Your task to perform on an android device: turn on location history Image 0: 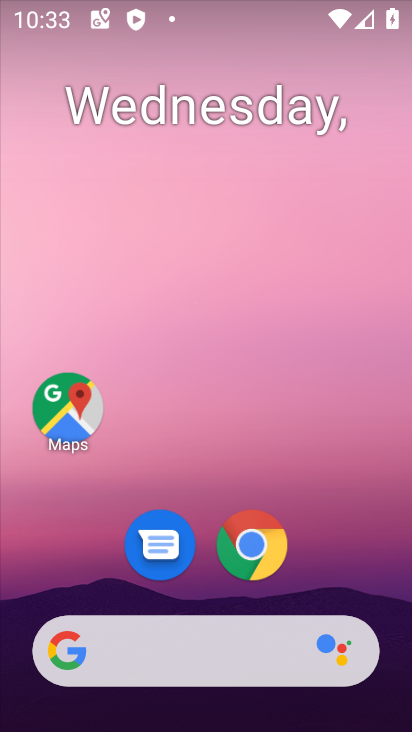
Step 0: drag from (198, 586) to (192, 247)
Your task to perform on an android device: turn on location history Image 1: 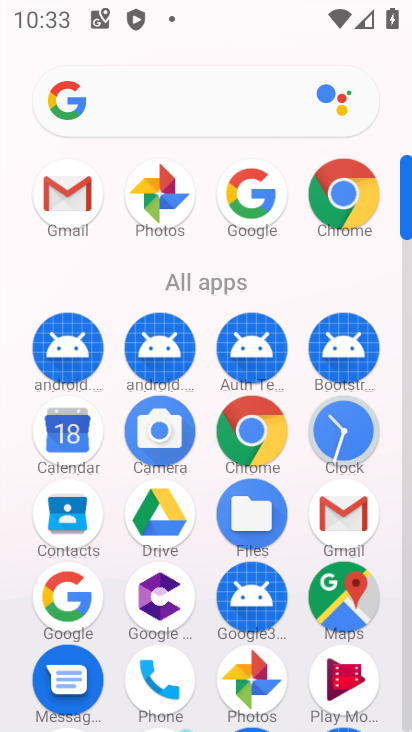
Step 1: drag from (204, 581) to (198, 245)
Your task to perform on an android device: turn on location history Image 2: 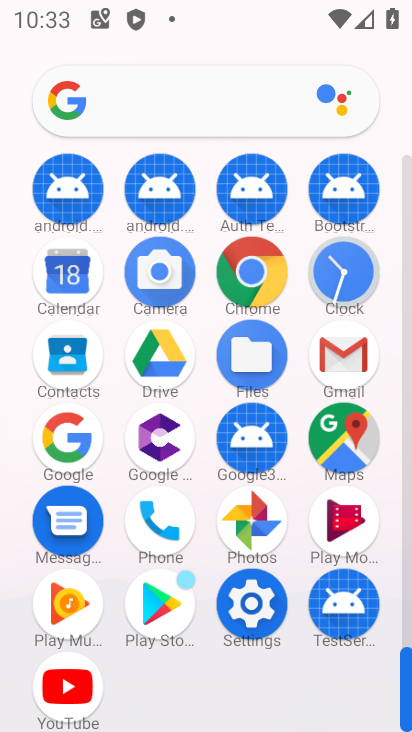
Step 2: click (256, 577)
Your task to perform on an android device: turn on location history Image 3: 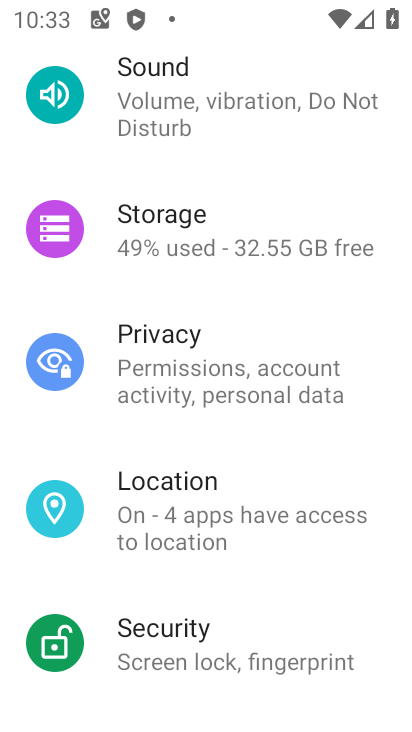
Step 3: click (192, 514)
Your task to perform on an android device: turn on location history Image 4: 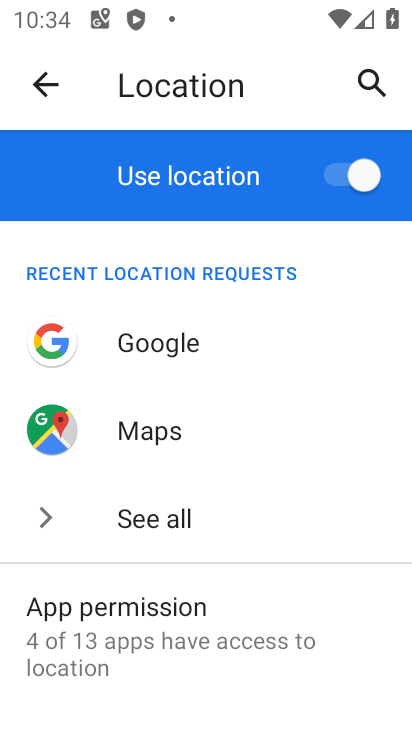
Step 4: drag from (163, 590) to (184, 257)
Your task to perform on an android device: turn on location history Image 5: 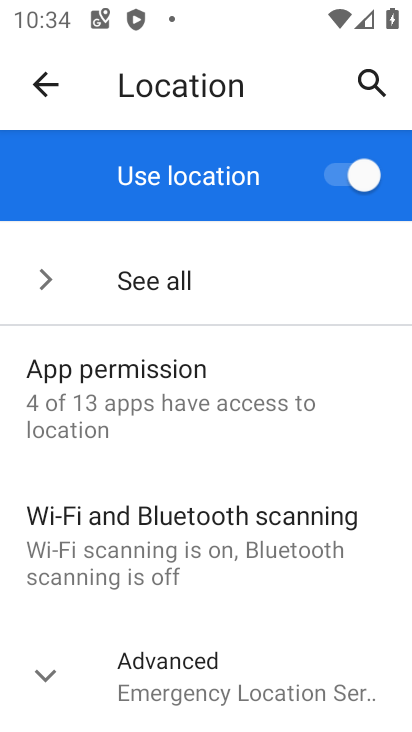
Step 5: drag from (181, 621) to (200, 398)
Your task to perform on an android device: turn on location history Image 6: 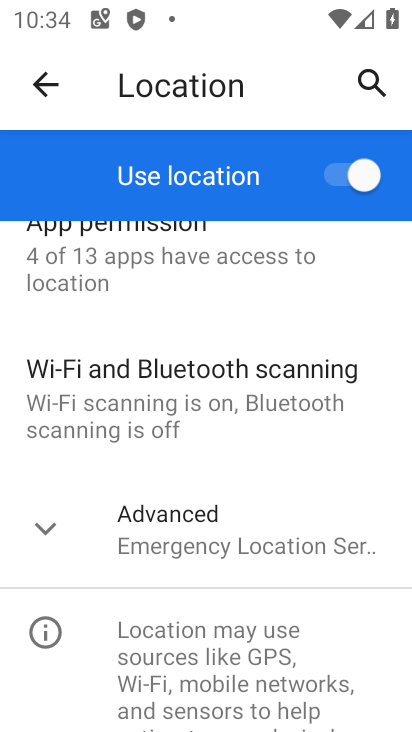
Step 6: click (176, 550)
Your task to perform on an android device: turn on location history Image 7: 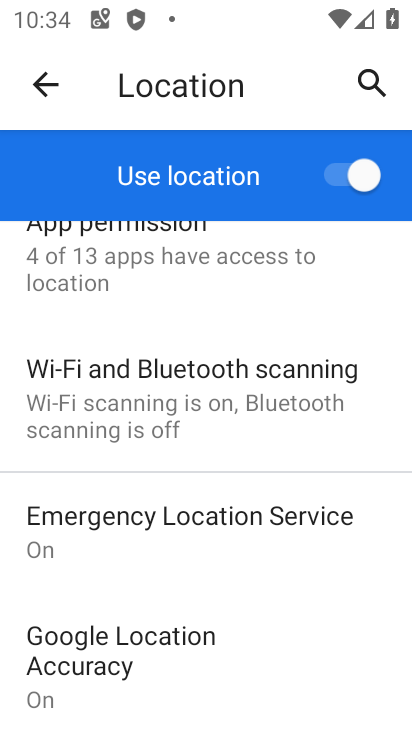
Step 7: drag from (217, 659) to (247, 461)
Your task to perform on an android device: turn on location history Image 8: 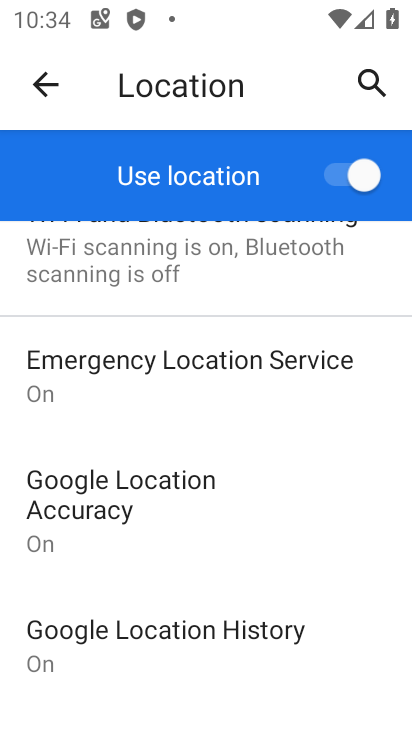
Step 8: click (127, 646)
Your task to perform on an android device: turn on location history Image 9: 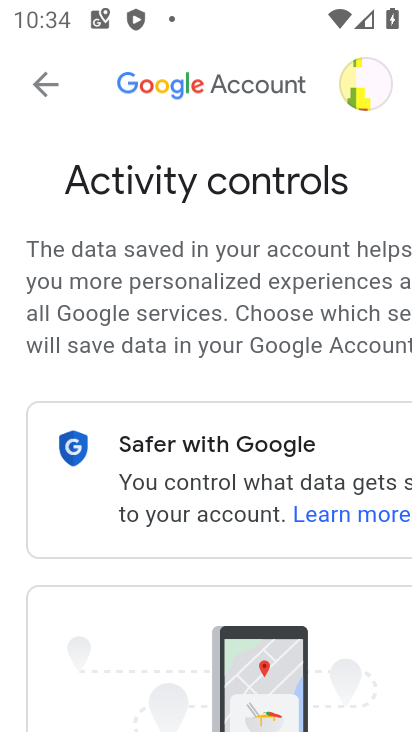
Step 9: task complete